Your task to perform on an android device: manage bookmarks in the chrome app Image 0: 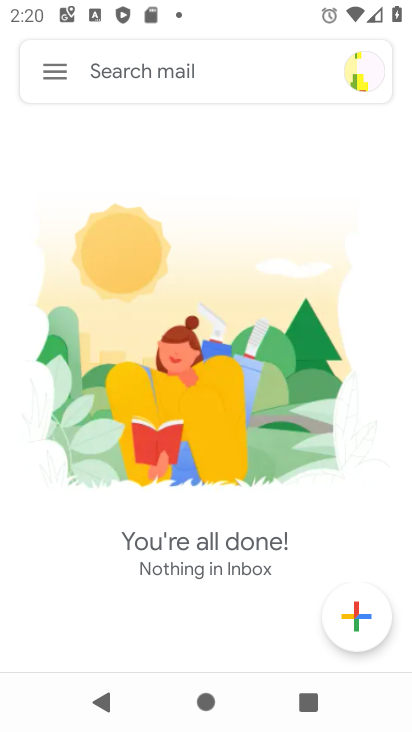
Step 0: press home button
Your task to perform on an android device: manage bookmarks in the chrome app Image 1: 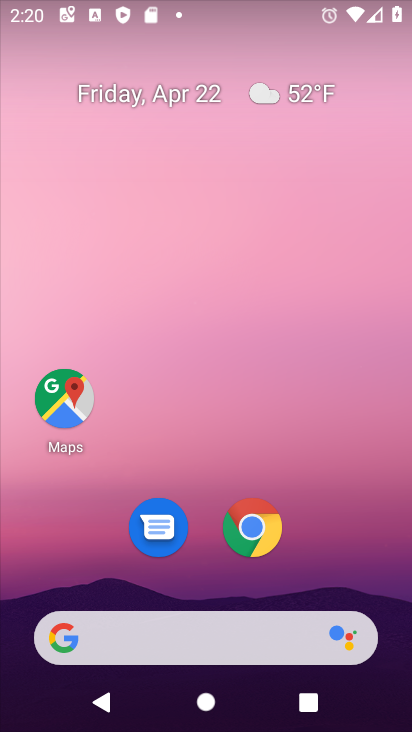
Step 1: click (253, 518)
Your task to perform on an android device: manage bookmarks in the chrome app Image 2: 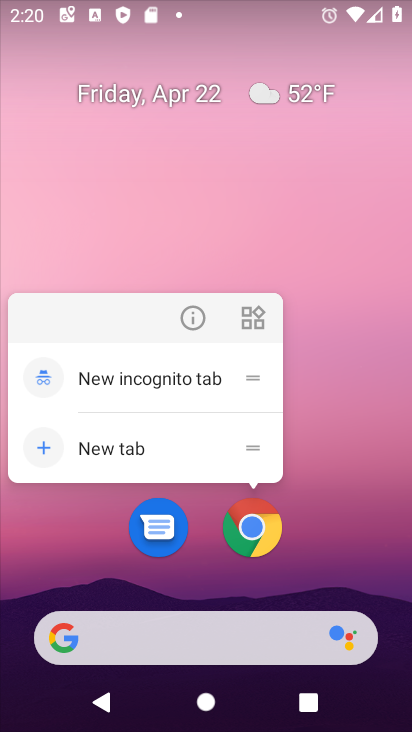
Step 2: click (253, 519)
Your task to perform on an android device: manage bookmarks in the chrome app Image 3: 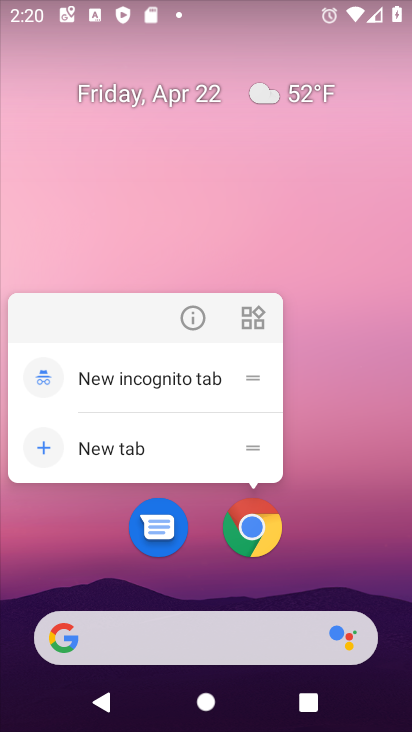
Step 3: click (253, 517)
Your task to perform on an android device: manage bookmarks in the chrome app Image 4: 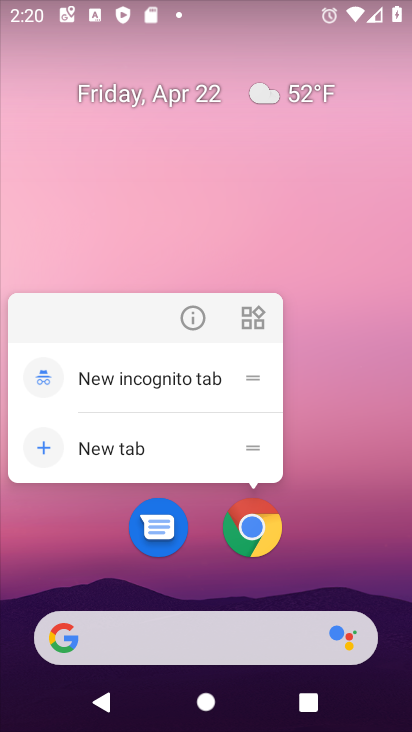
Step 4: click (253, 518)
Your task to perform on an android device: manage bookmarks in the chrome app Image 5: 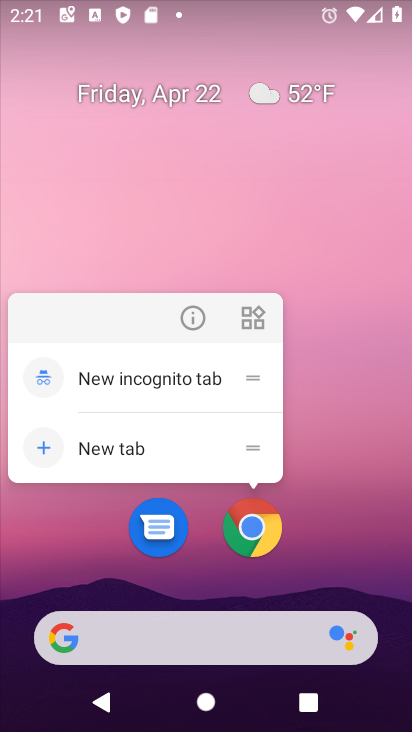
Step 5: click (253, 517)
Your task to perform on an android device: manage bookmarks in the chrome app Image 6: 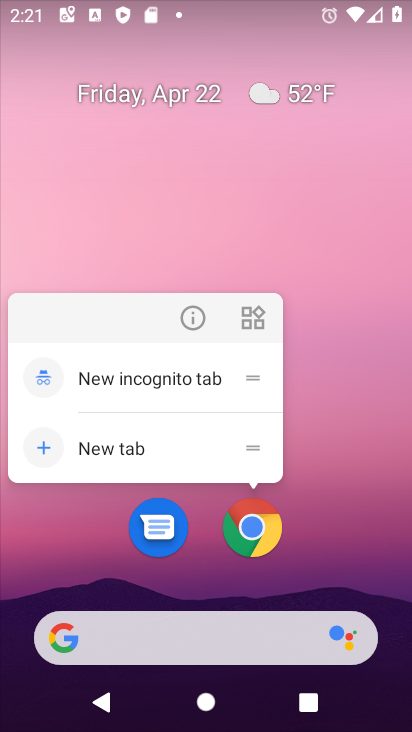
Step 6: click (270, 524)
Your task to perform on an android device: manage bookmarks in the chrome app Image 7: 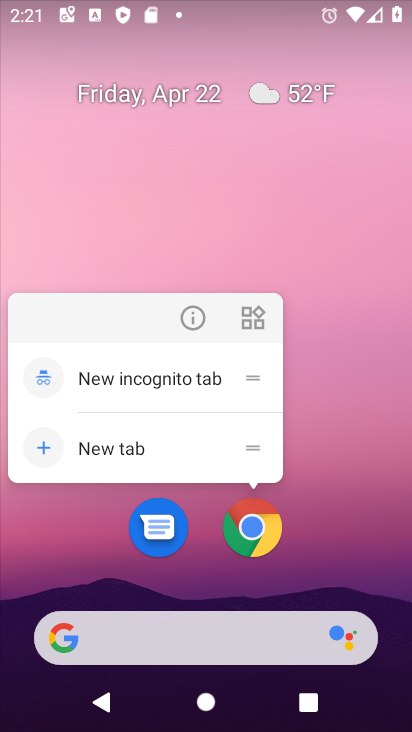
Step 7: click (270, 521)
Your task to perform on an android device: manage bookmarks in the chrome app Image 8: 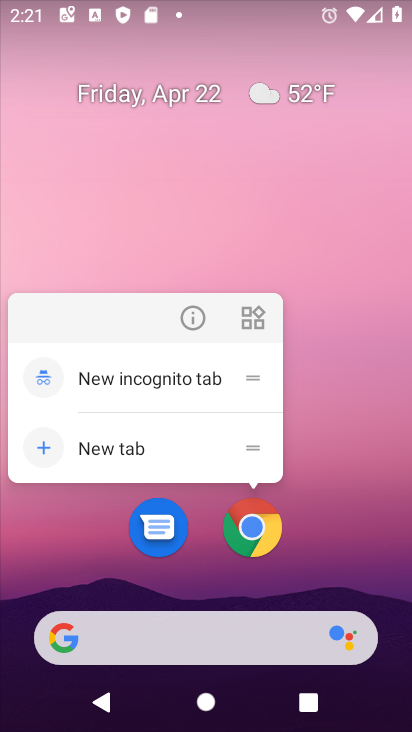
Step 8: click (254, 543)
Your task to perform on an android device: manage bookmarks in the chrome app Image 9: 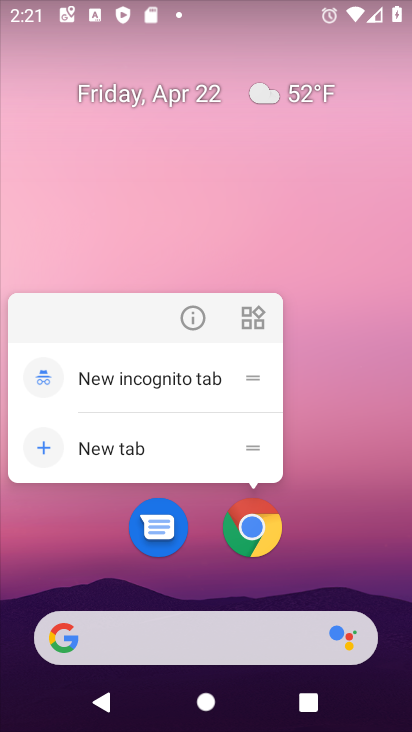
Step 9: click (254, 543)
Your task to perform on an android device: manage bookmarks in the chrome app Image 10: 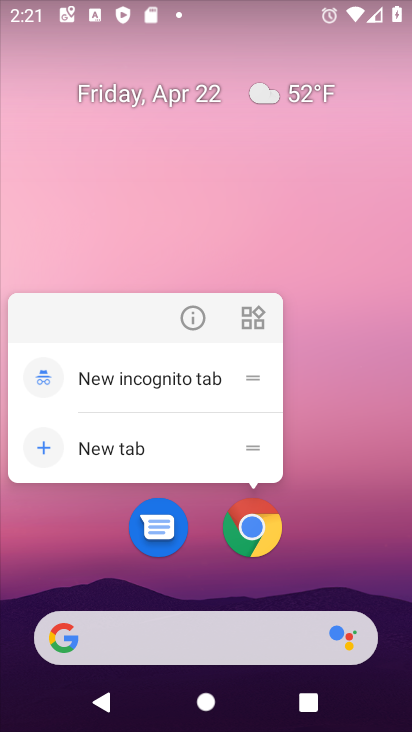
Step 10: click (228, 523)
Your task to perform on an android device: manage bookmarks in the chrome app Image 11: 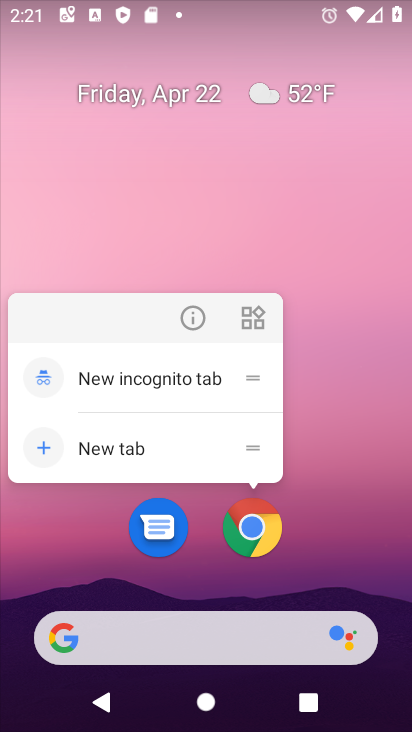
Step 11: click (228, 523)
Your task to perform on an android device: manage bookmarks in the chrome app Image 12: 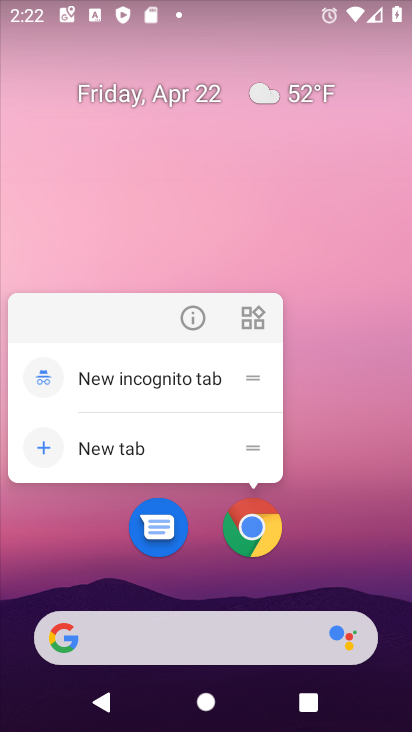
Step 12: click (234, 511)
Your task to perform on an android device: manage bookmarks in the chrome app Image 13: 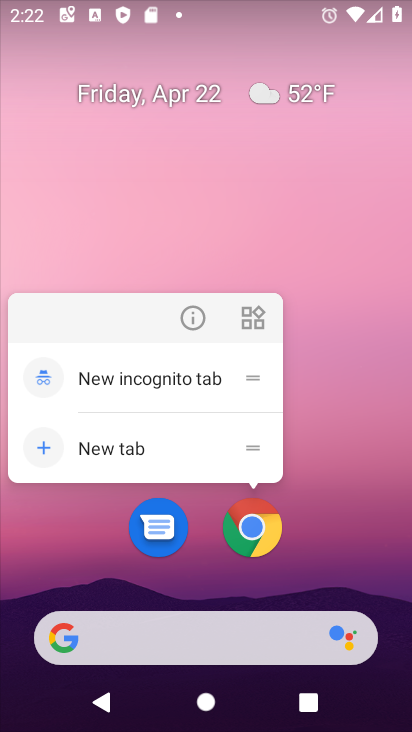
Step 13: click (246, 512)
Your task to perform on an android device: manage bookmarks in the chrome app Image 14: 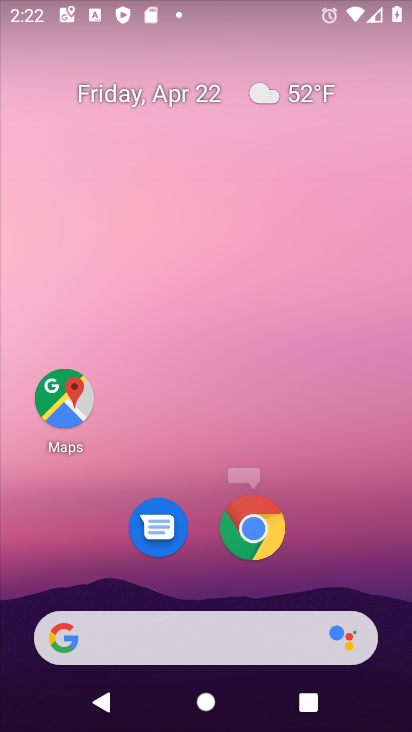
Step 14: click (245, 512)
Your task to perform on an android device: manage bookmarks in the chrome app Image 15: 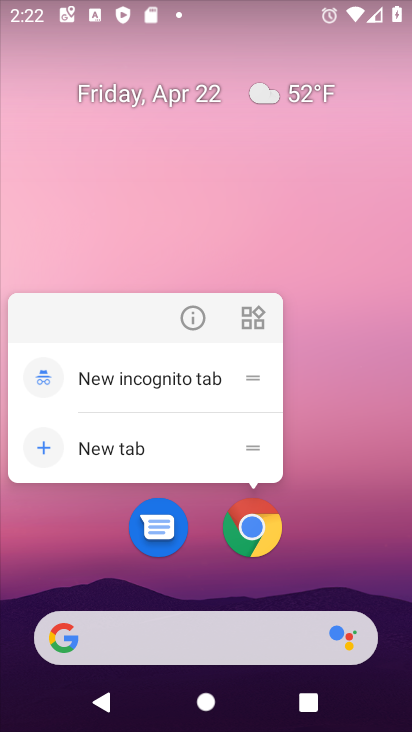
Step 15: click (243, 509)
Your task to perform on an android device: manage bookmarks in the chrome app Image 16: 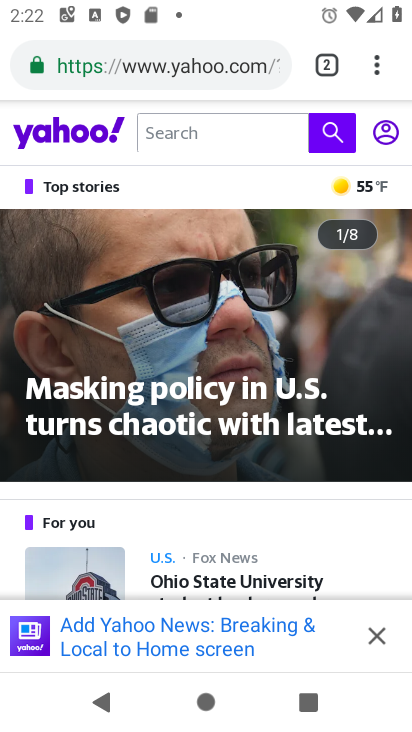
Step 16: task complete